Your task to perform on an android device: set the timer Image 0: 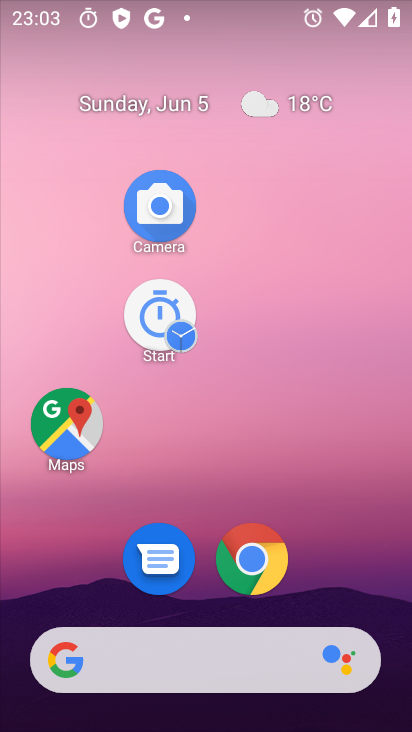
Step 0: drag from (202, 633) to (97, 95)
Your task to perform on an android device: set the timer Image 1: 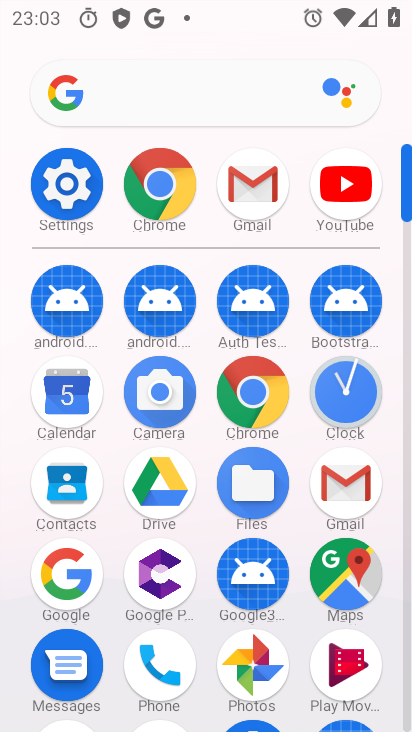
Step 1: click (335, 396)
Your task to perform on an android device: set the timer Image 2: 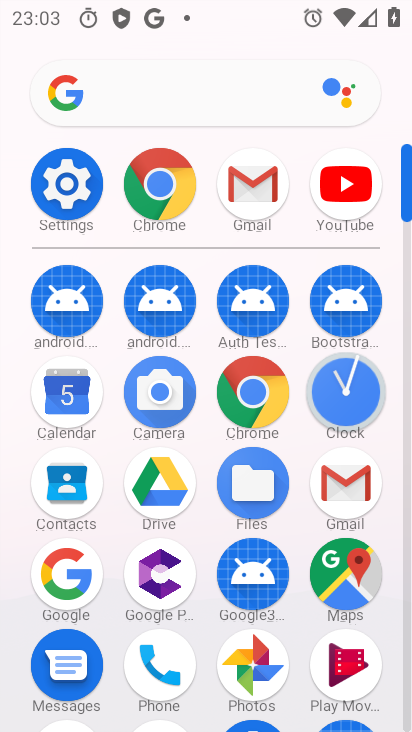
Step 2: click (335, 394)
Your task to perform on an android device: set the timer Image 3: 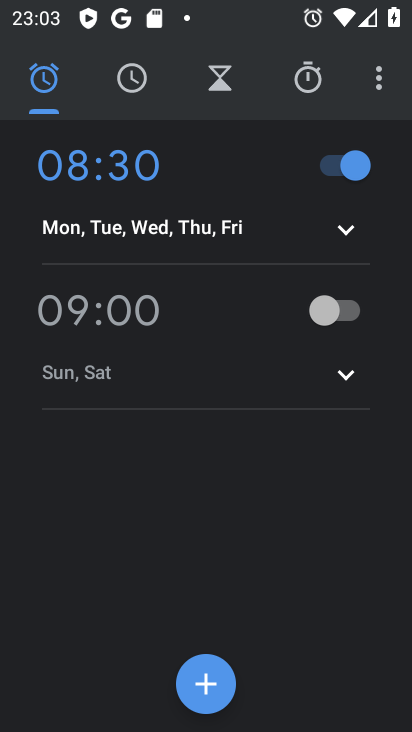
Step 3: click (334, 393)
Your task to perform on an android device: set the timer Image 4: 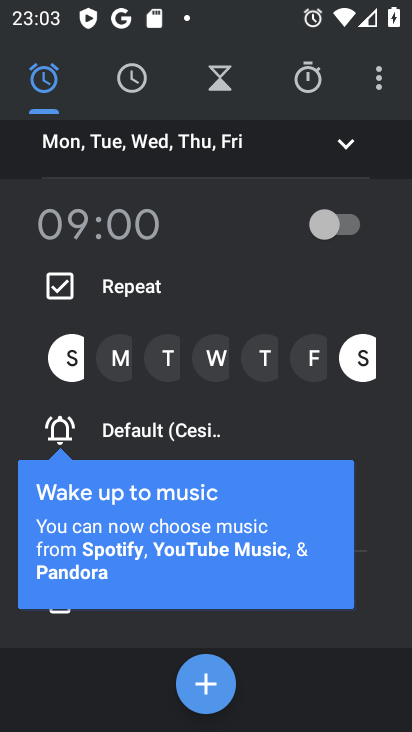
Step 4: click (211, 63)
Your task to perform on an android device: set the timer Image 5: 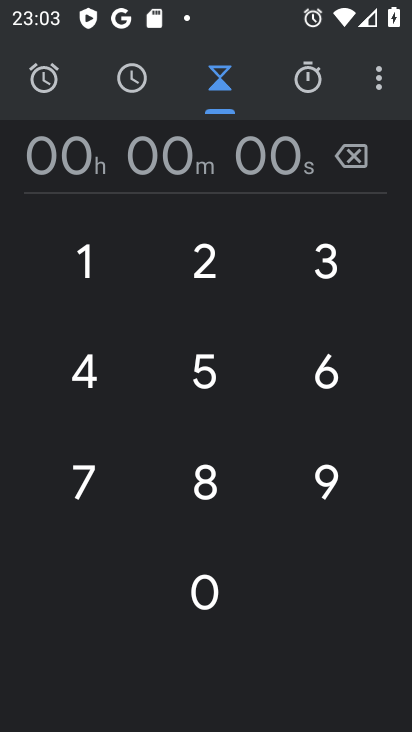
Step 5: click (205, 488)
Your task to perform on an android device: set the timer Image 6: 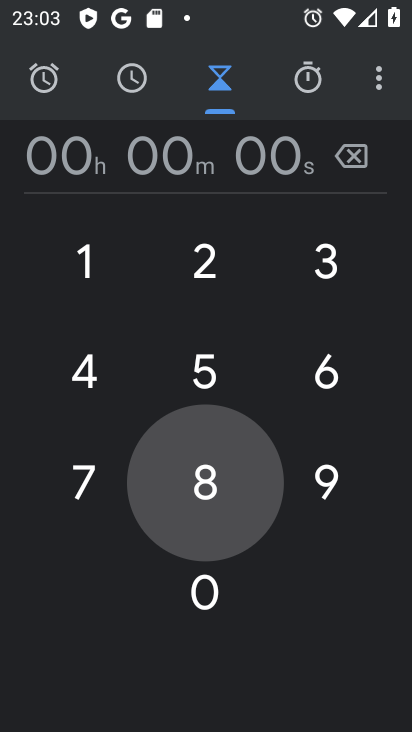
Step 6: click (208, 483)
Your task to perform on an android device: set the timer Image 7: 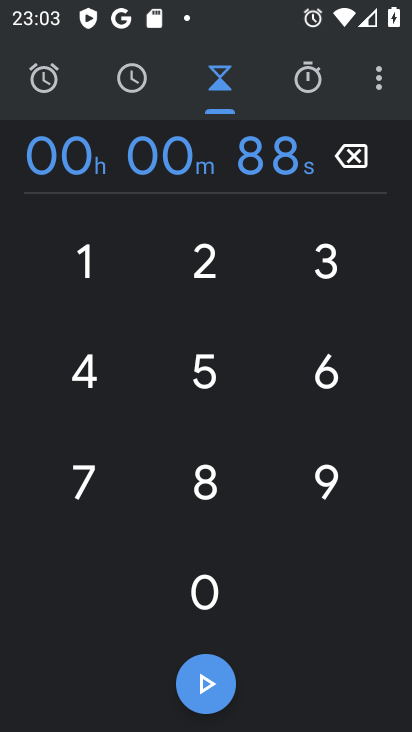
Step 7: click (201, 684)
Your task to perform on an android device: set the timer Image 8: 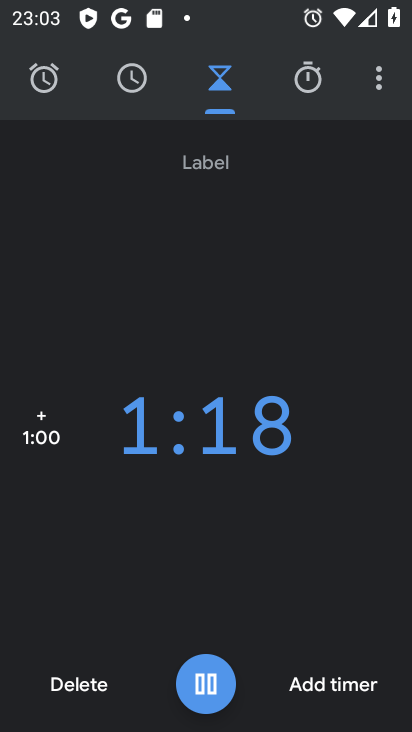
Step 8: click (205, 687)
Your task to perform on an android device: set the timer Image 9: 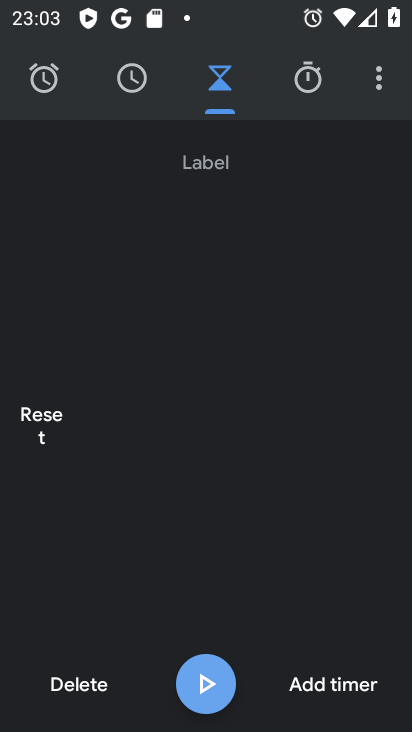
Step 9: click (203, 684)
Your task to perform on an android device: set the timer Image 10: 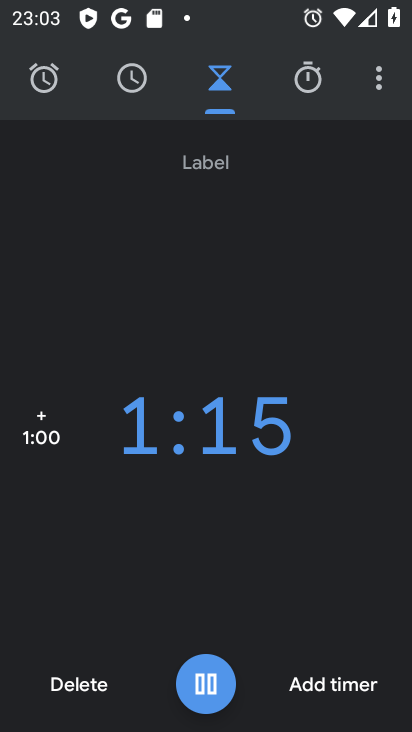
Step 10: click (219, 690)
Your task to perform on an android device: set the timer Image 11: 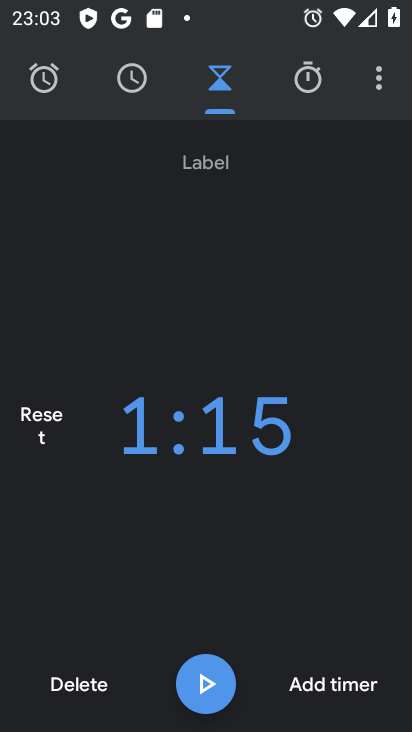
Step 11: task complete